Your task to perform on an android device: Go to Yahoo.com Image 0: 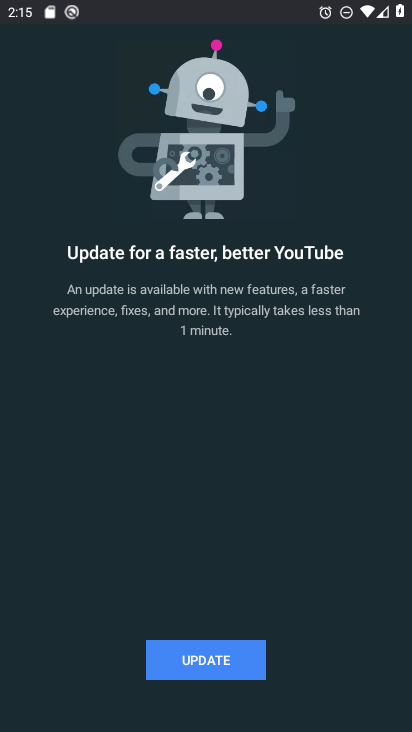
Step 0: press home button
Your task to perform on an android device: Go to Yahoo.com Image 1: 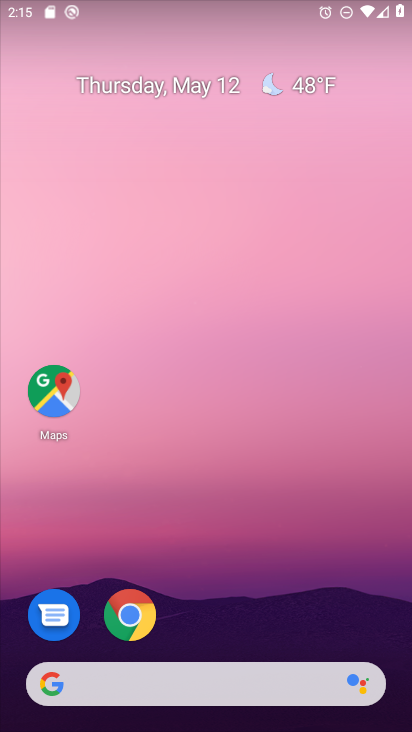
Step 1: drag from (296, 633) to (357, 71)
Your task to perform on an android device: Go to Yahoo.com Image 2: 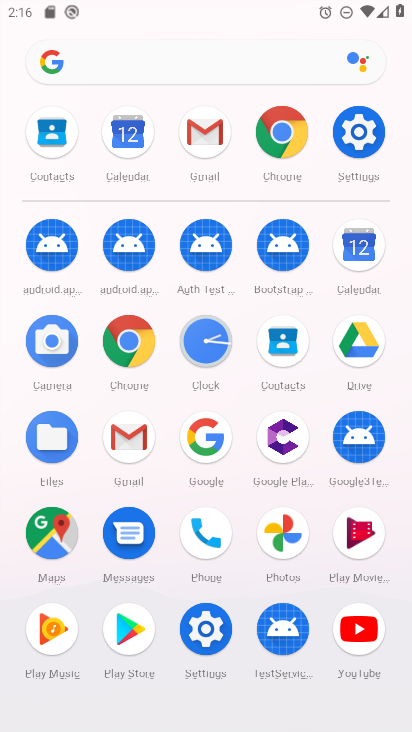
Step 2: click (124, 351)
Your task to perform on an android device: Go to Yahoo.com Image 3: 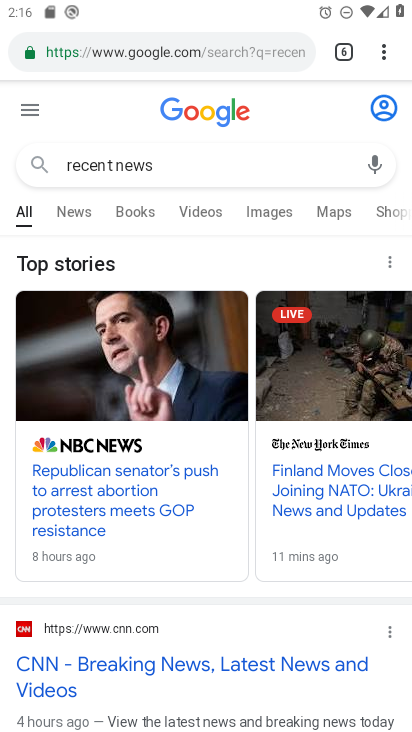
Step 3: drag from (381, 58) to (200, 106)
Your task to perform on an android device: Go to Yahoo.com Image 4: 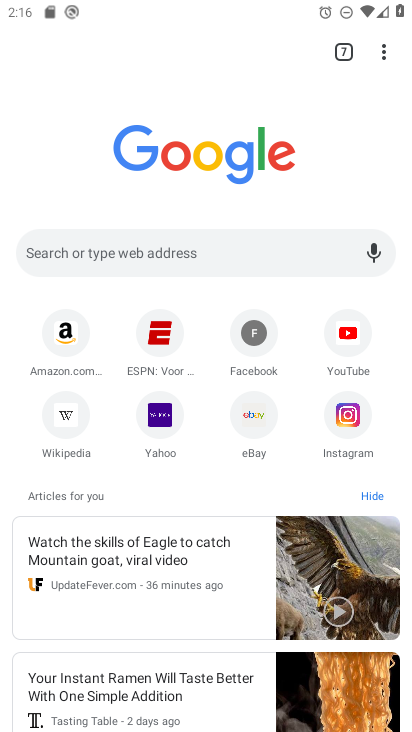
Step 4: click (158, 424)
Your task to perform on an android device: Go to Yahoo.com Image 5: 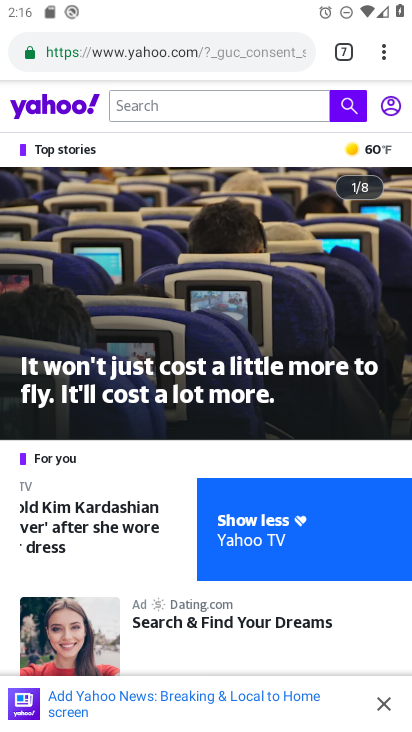
Step 5: task complete